Your task to perform on an android device: check android version Image 0: 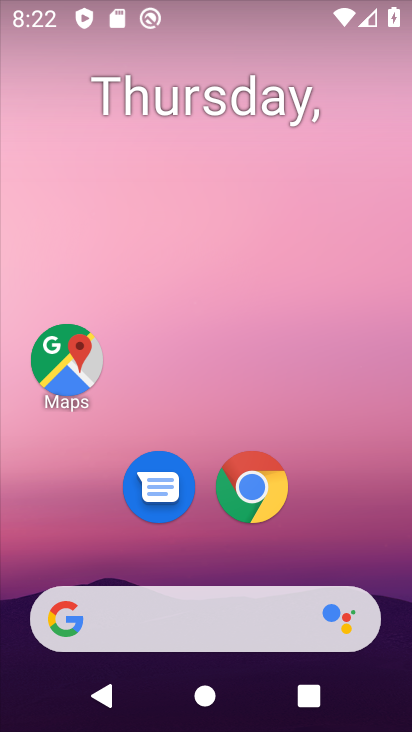
Step 0: drag from (296, 634) to (262, 54)
Your task to perform on an android device: check android version Image 1: 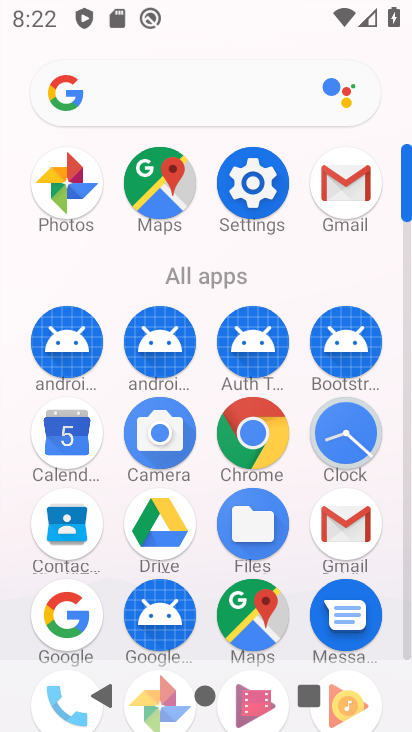
Step 1: click (247, 179)
Your task to perform on an android device: check android version Image 2: 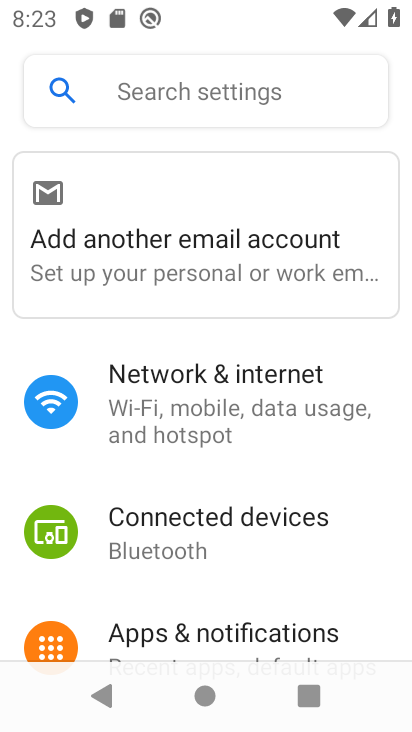
Step 2: click (200, 106)
Your task to perform on an android device: check android version Image 3: 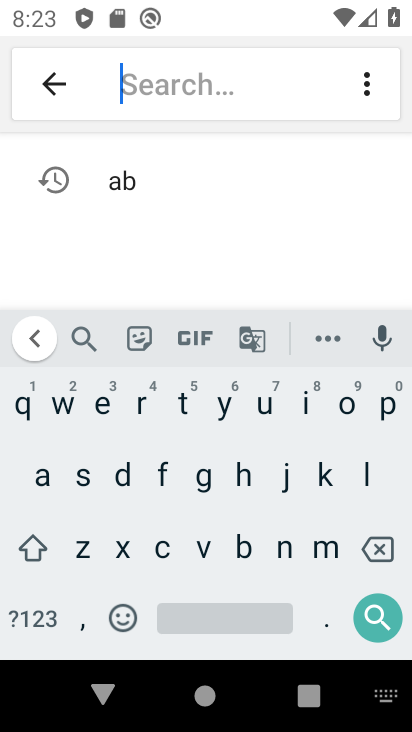
Step 3: click (38, 472)
Your task to perform on an android device: check android version Image 4: 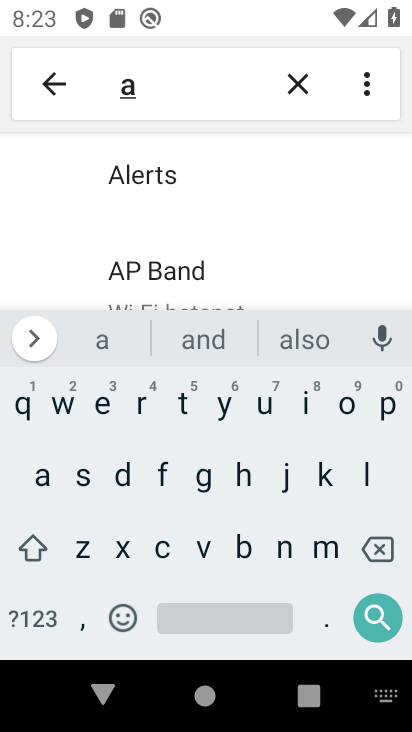
Step 4: click (288, 548)
Your task to perform on an android device: check android version Image 5: 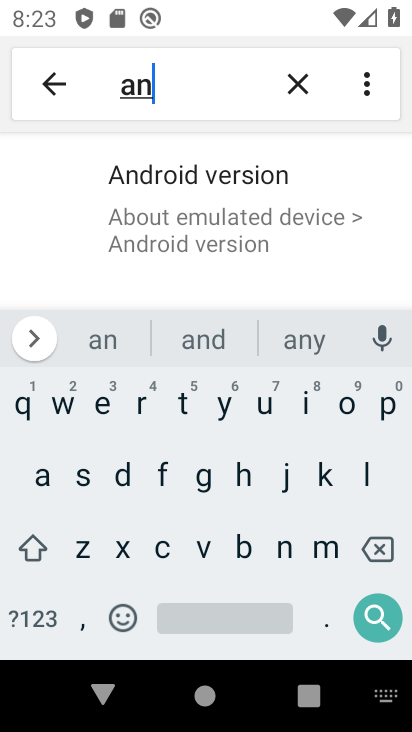
Step 5: click (178, 217)
Your task to perform on an android device: check android version Image 6: 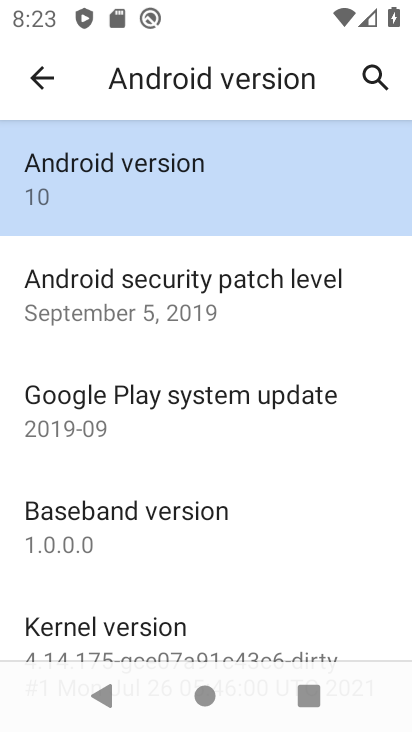
Step 6: click (183, 185)
Your task to perform on an android device: check android version Image 7: 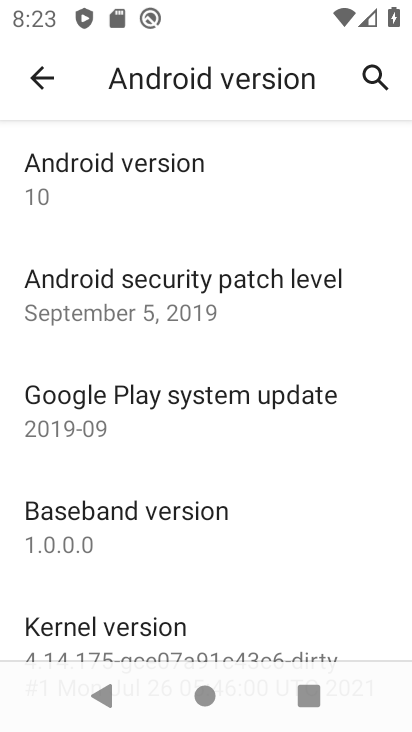
Step 7: click (160, 188)
Your task to perform on an android device: check android version Image 8: 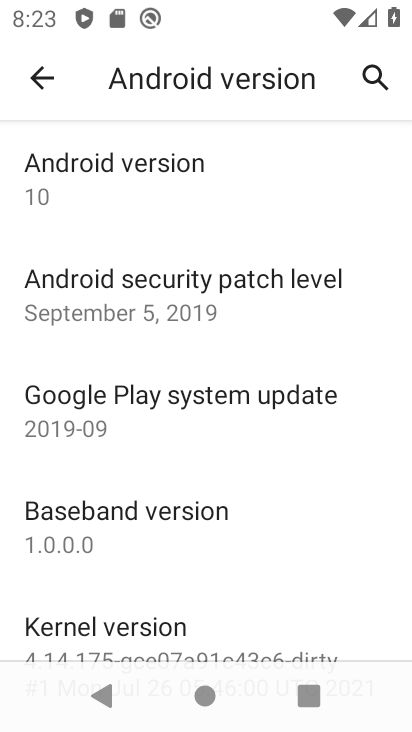
Step 8: task complete